Your task to perform on an android device: find snoozed emails in the gmail app Image 0: 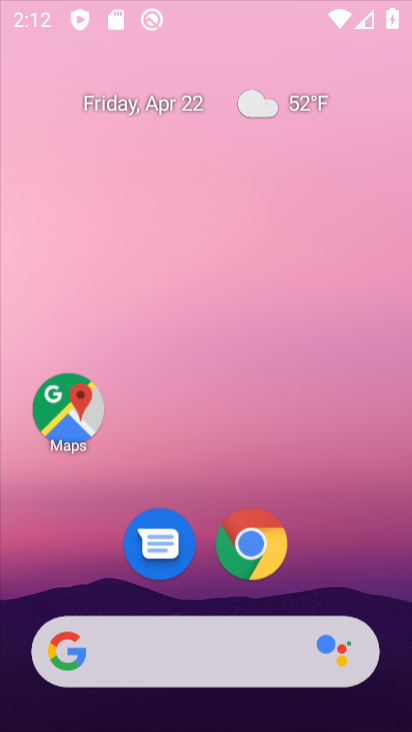
Step 0: click (215, 167)
Your task to perform on an android device: find snoozed emails in the gmail app Image 1: 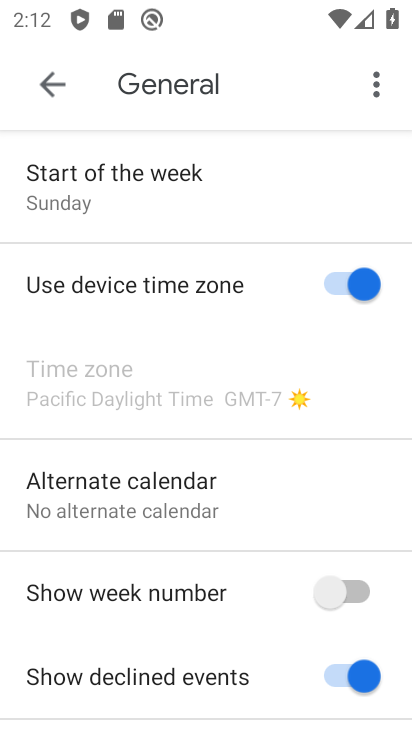
Step 1: type ""
Your task to perform on an android device: find snoozed emails in the gmail app Image 2: 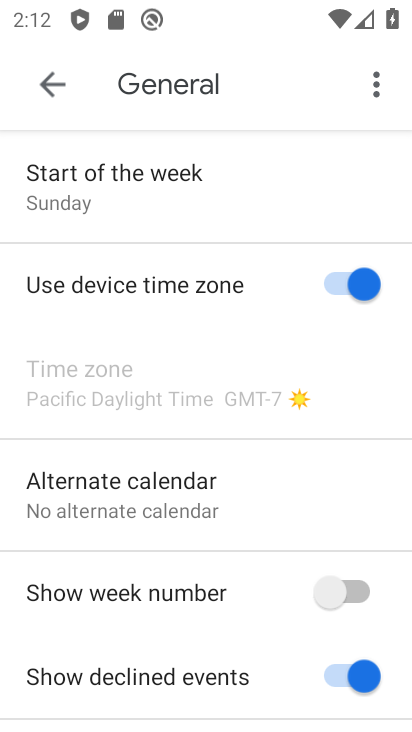
Step 2: press home button
Your task to perform on an android device: find snoozed emails in the gmail app Image 3: 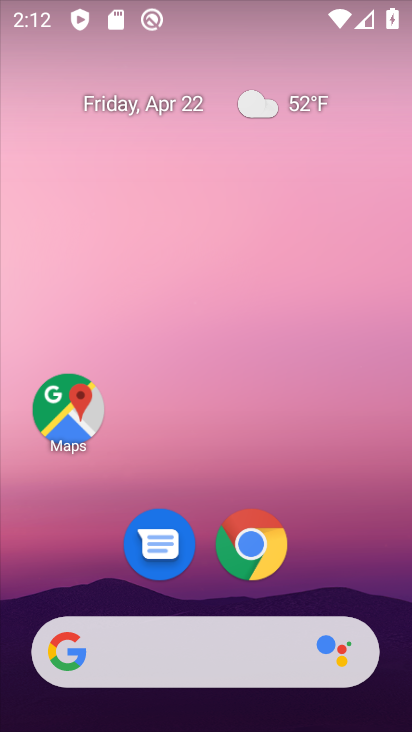
Step 3: drag from (204, 580) to (242, 41)
Your task to perform on an android device: find snoozed emails in the gmail app Image 4: 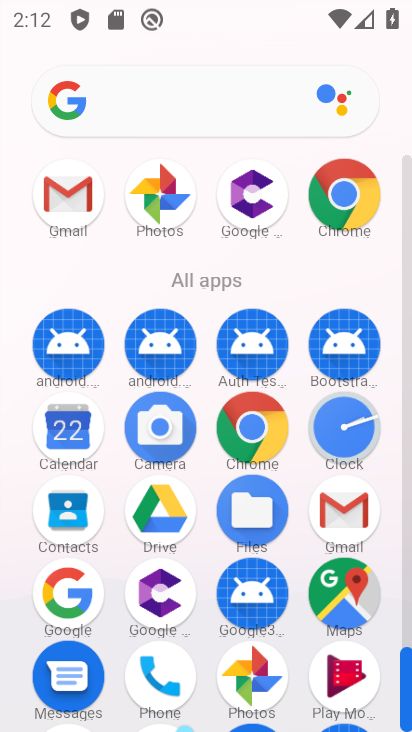
Step 4: click (328, 520)
Your task to perform on an android device: find snoozed emails in the gmail app Image 5: 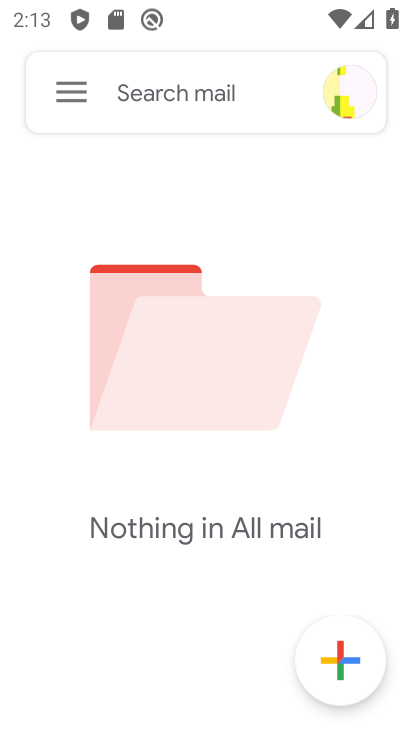
Step 5: click (50, 84)
Your task to perform on an android device: find snoozed emails in the gmail app Image 6: 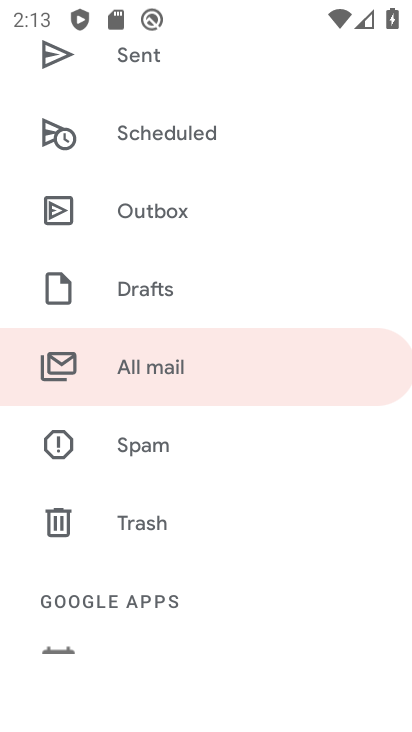
Step 6: drag from (173, 125) to (250, 517)
Your task to perform on an android device: find snoozed emails in the gmail app Image 7: 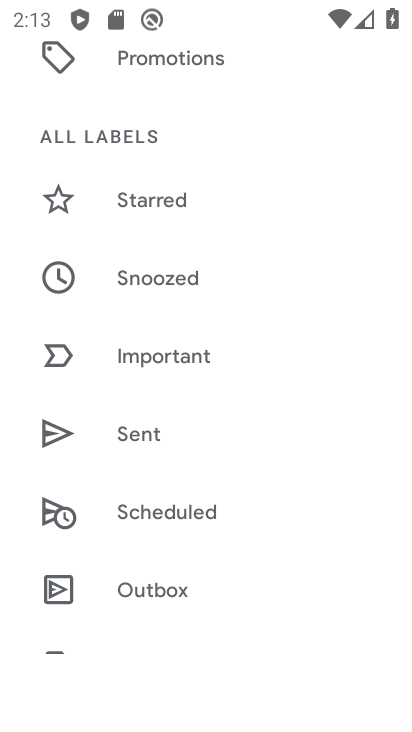
Step 7: click (186, 286)
Your task to perform on an android device: find snoozed emails in the gmail app Image 8: 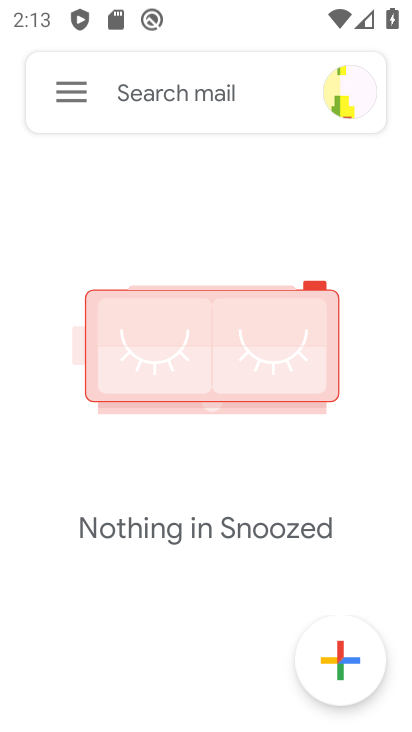
Step 8: task complete